Your task to perform on an android device: change notification settings in the gmail app Image 0: 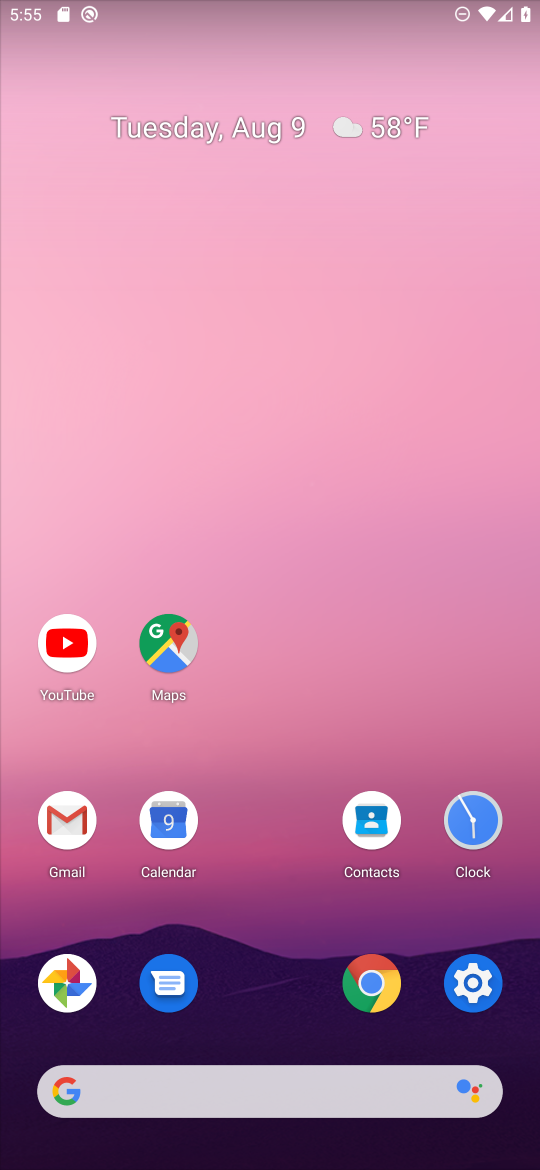
Step 0: click (73, 810)
Your task to perform on an android device: change notification settings in the gmail app Image 1: 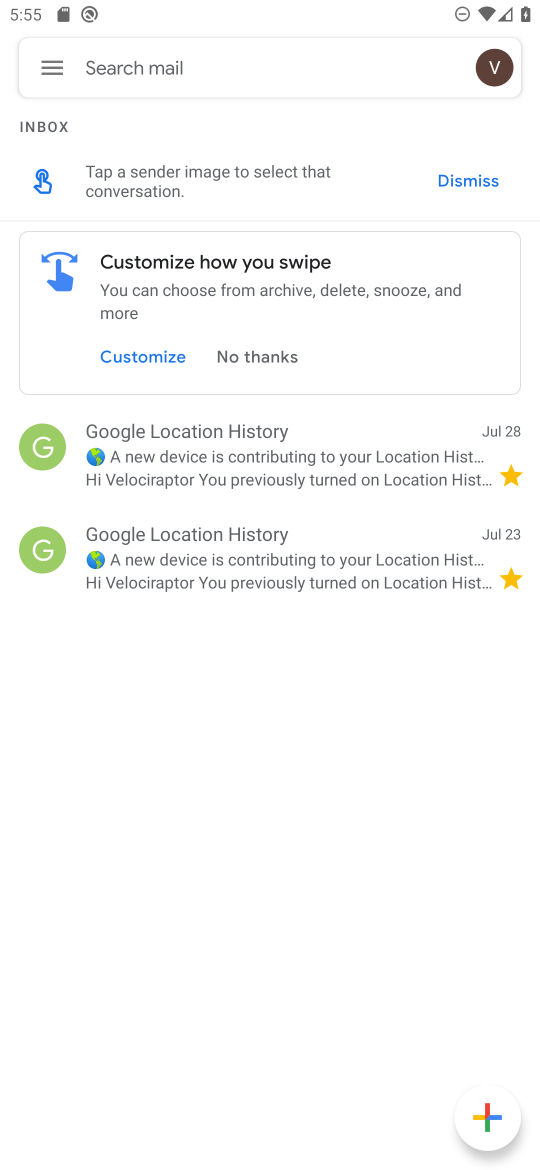
Step 1: click (48, 61)
Your task to perform on an android device: change notification settings in the gmail app Image 2: 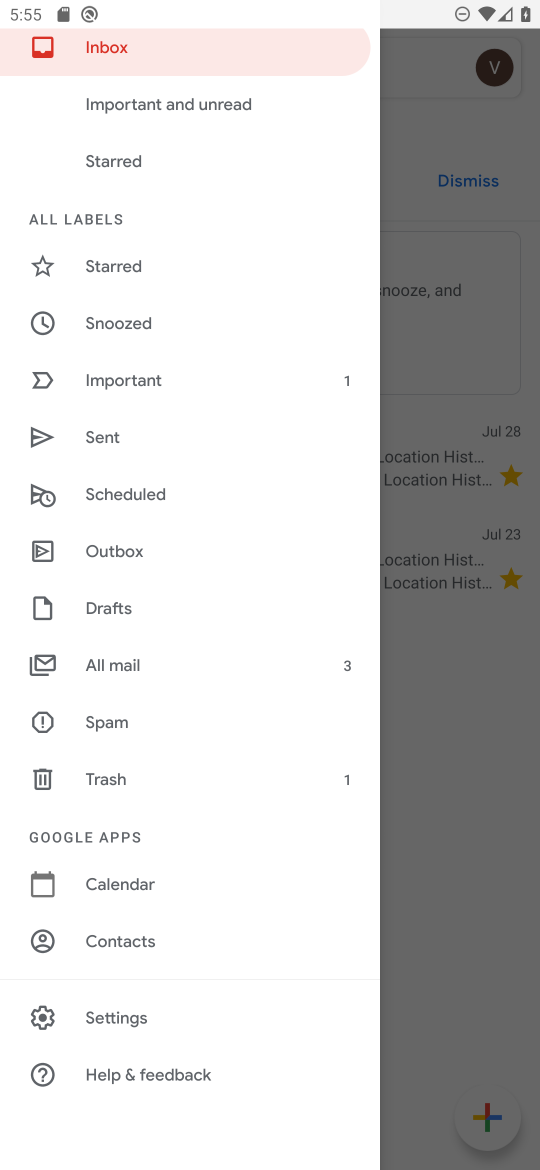
Step 2: click (122, 1015)
Your task to perform on an android device: change notification settings in the gmail app Image 3: 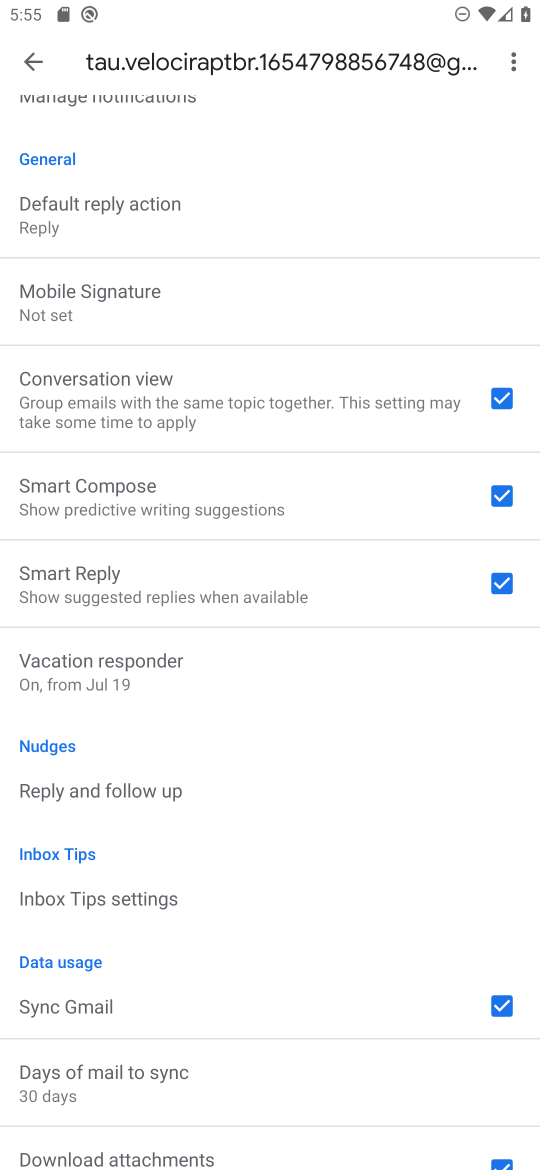
Step 3: click (27, 56)
Your task to perform on an android device: change notification settings in the gmail app Image 4: 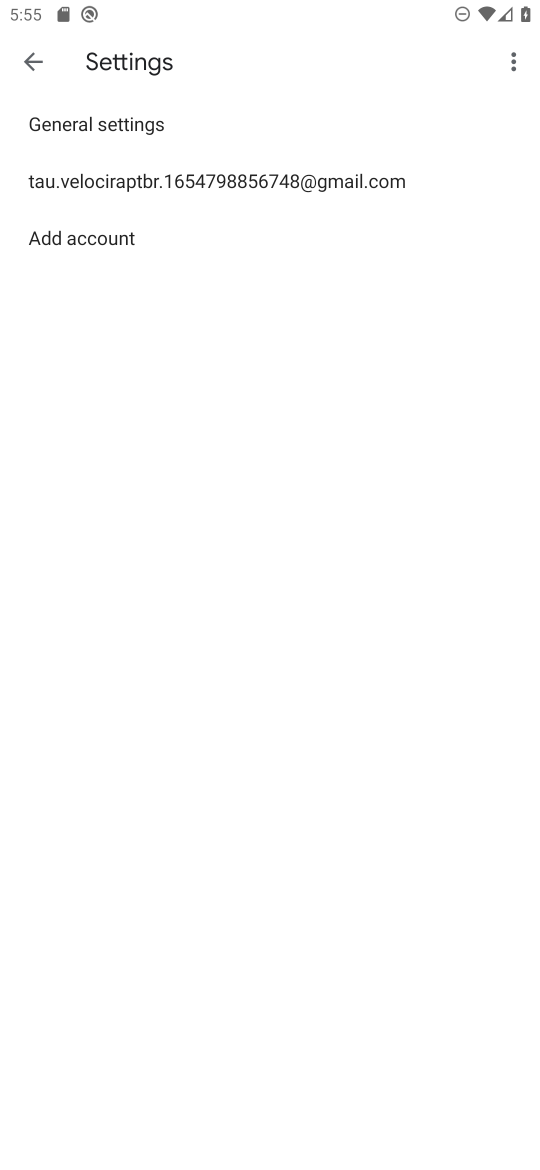
Step 4: click (78, 106)
Your task to perform on an android device: change notification settings in the gmail app Image 5: 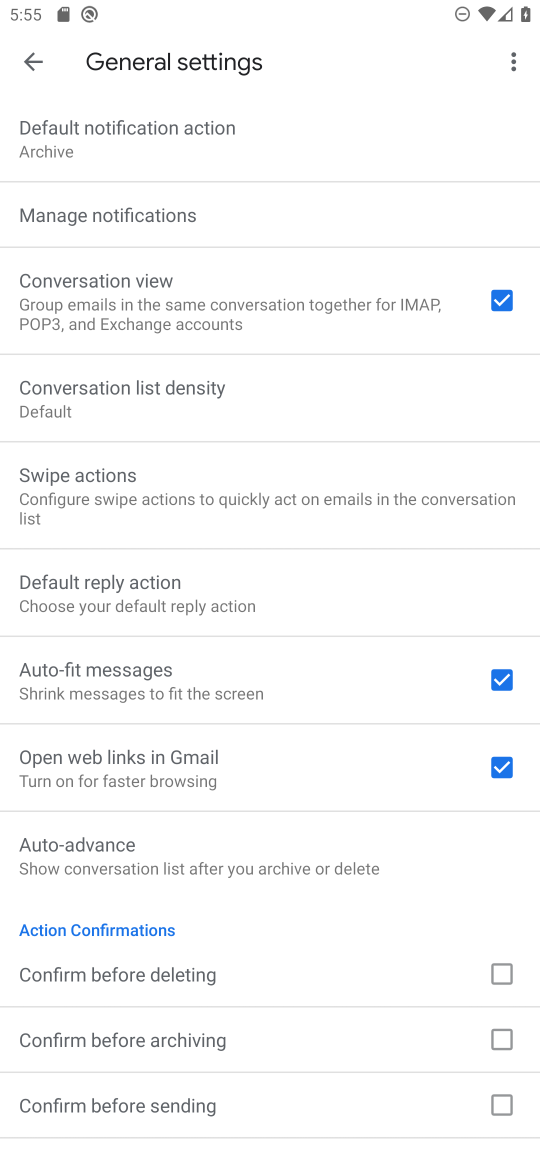
Step 5: click (114, 203)
Your task to perform on an android device: change notification settings in the gmail app Image 6: 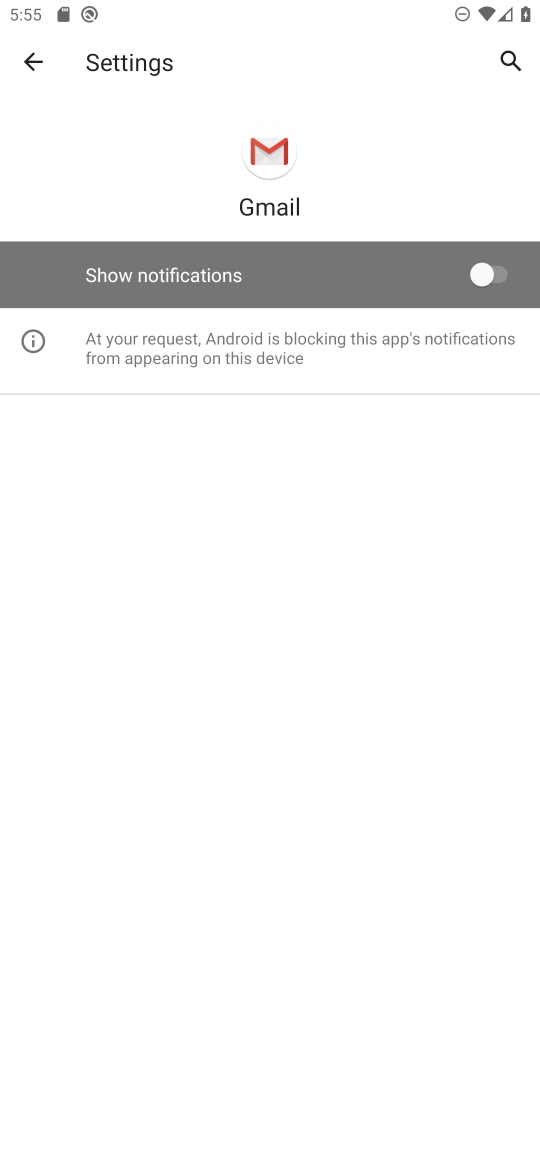
Step 6: click (484, 262)
Your task to perform on an android device: change notification settings in the gmail app Image 7: 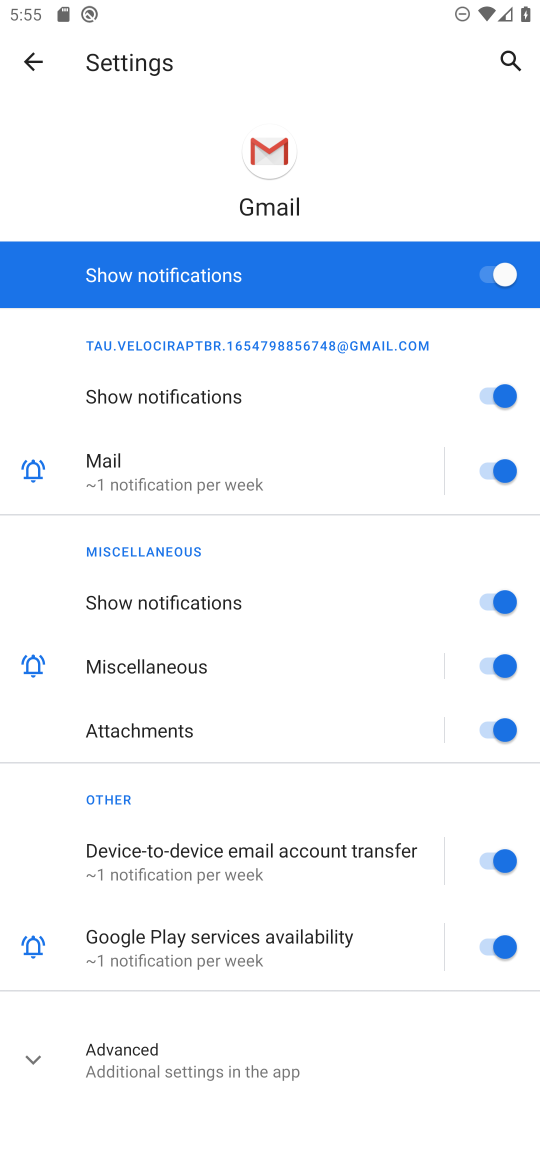
Step 7: task complete